Your task to perform on an android device: turn off airplane mode Image 0: 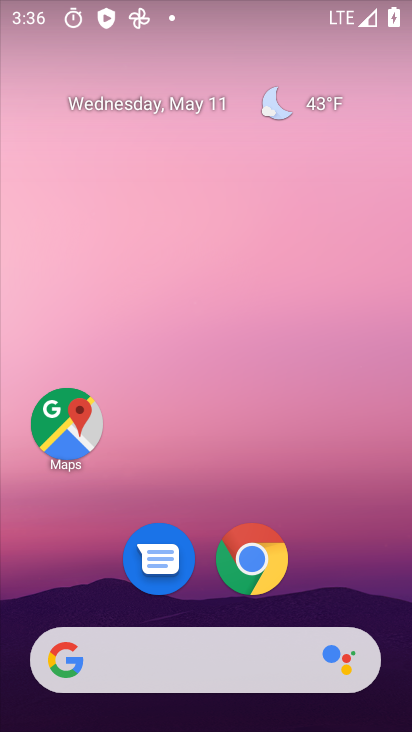
Step 0: drag from (346, 567) to (237, 57)
Your task to perform on an android device: turn off airplane mode Image 1: 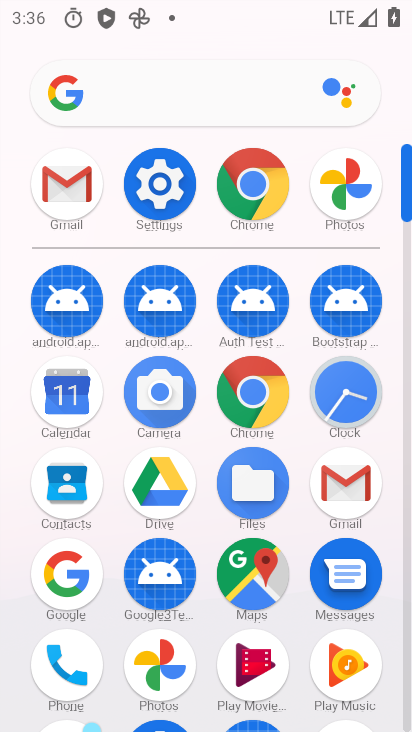
Step 1: click (166, 176)
Your task to perform on an android device: turn off airplane mode Image 2: 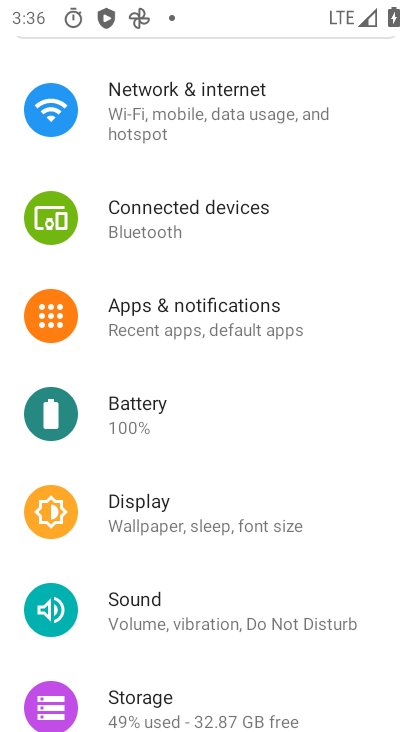
Step 2: click (215, 124)
Your task to perform on an android device: turn off airplane mode Image 3: 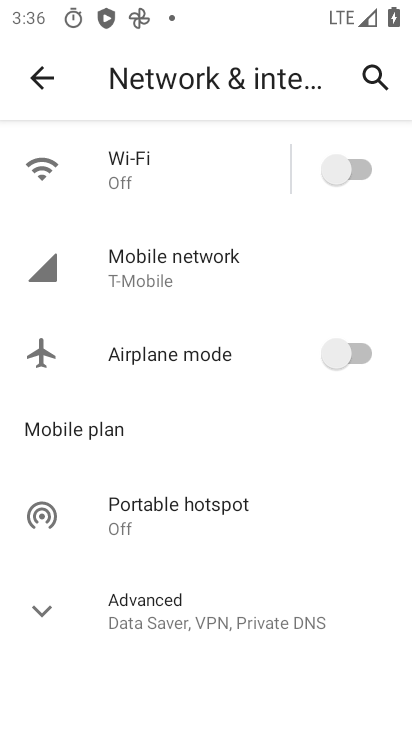
Step 3: task complete